Your task to perform on an android device: see creations saved in the google photos Image 0: 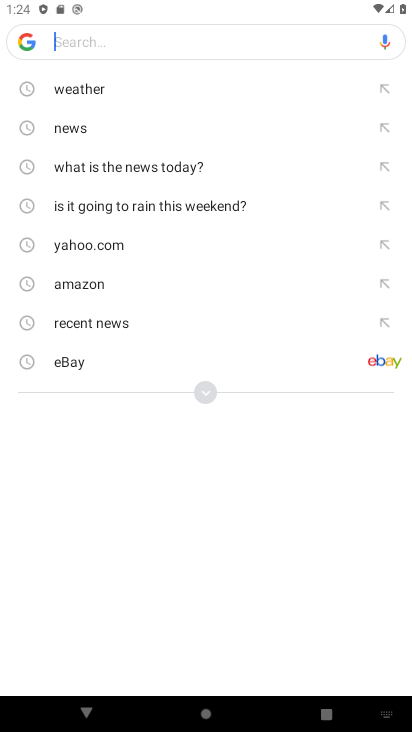
Step 0: press back button
Your task to perform on an android device: see creations saved in the google photos Image 1: 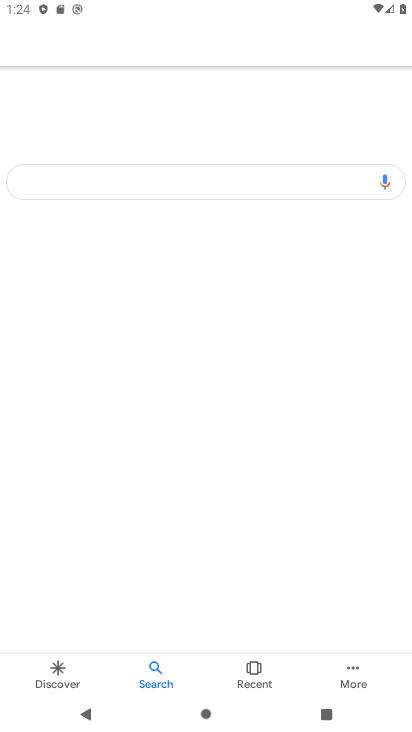
Step 1: press back button
Your task to perform on an android device: see creations saved in the google photos Image 2: 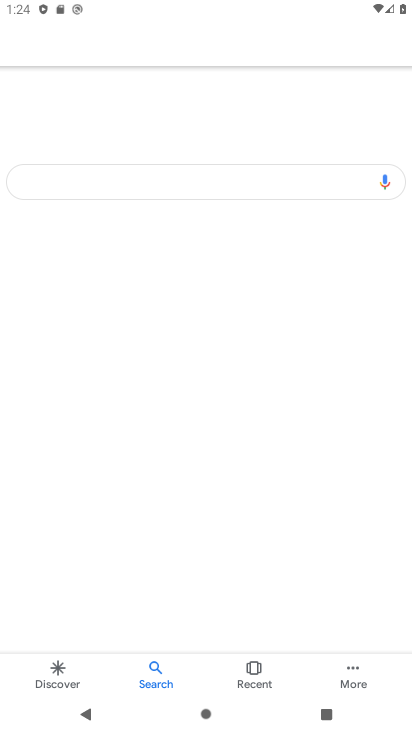
Step 2: press back button
Your task to perform on an android device: see creations saved in the google photos Image 3: 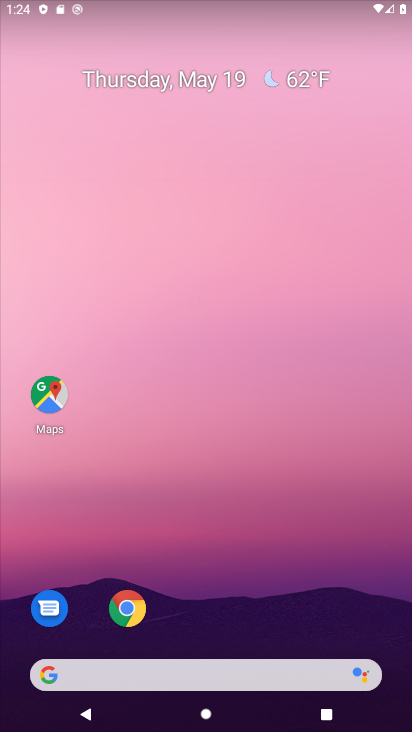
Step 3: drag from (336, 617) to (234, 73)
Your task to perform on an android device: see creations saved in the google photos Image 4: 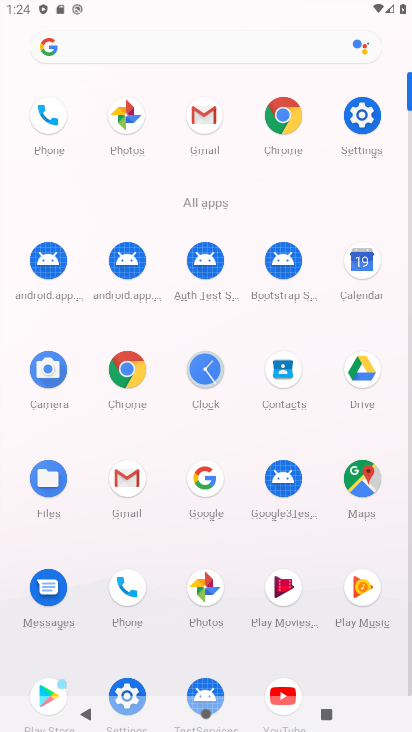
Step 4: click (205, 602)
Your task to perform on an android device: see creations saved in the google photos Image 5: 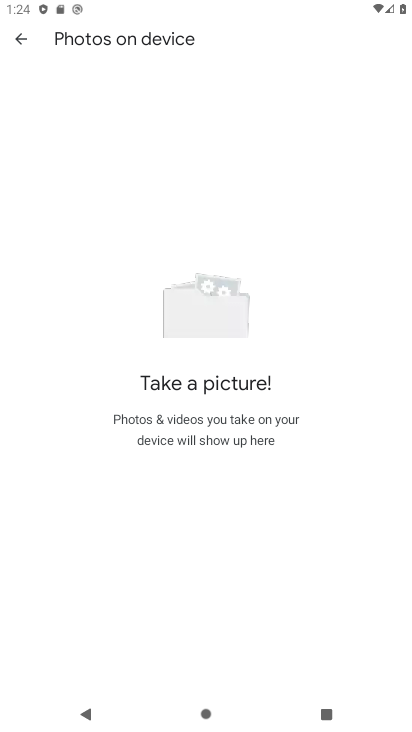
Step 5: click (7, 33)
Your task to perform on an android device: see creations saved in the google photos Image 6: 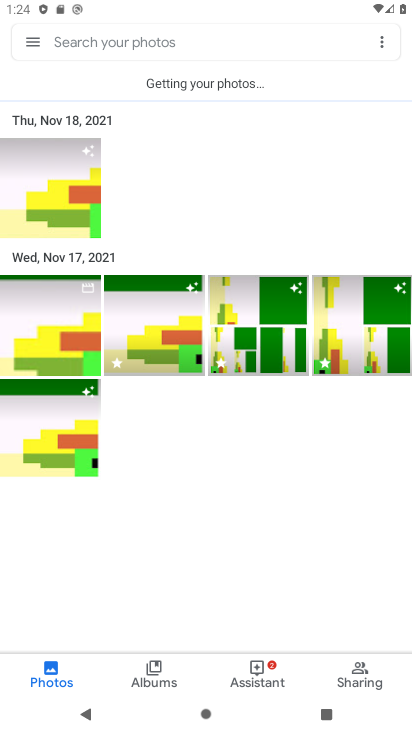
Step 6: task complete